Your task to perform on an android device: Open wifi settings Image 0: 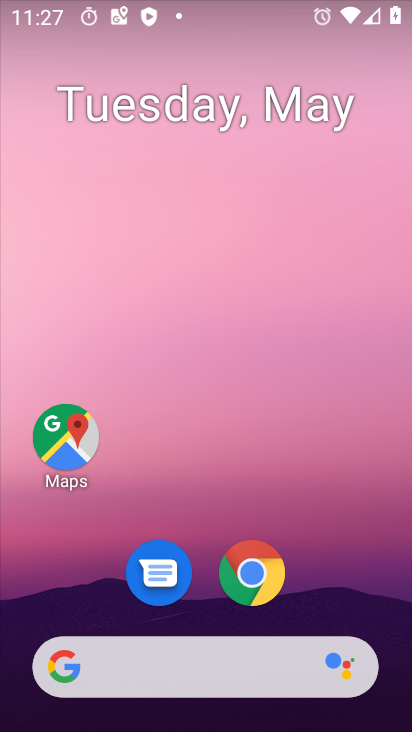
Step 0: drag from (266, 693) to (256, 224)
Your task to perform on an android device: Open wifi settings Image 1: 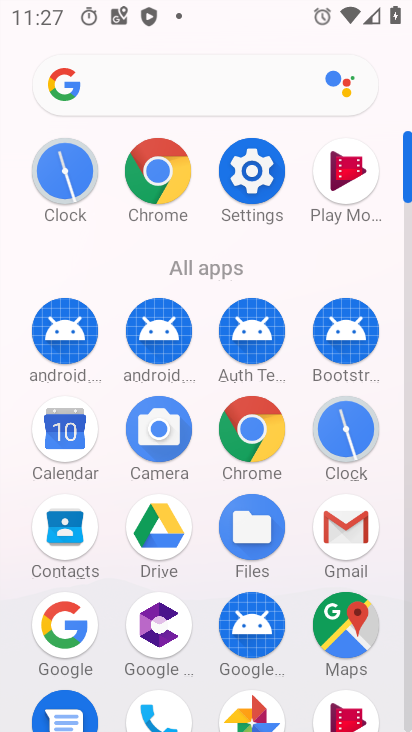
Step 1: click (239, 206)
Your task to perform on an android device: Open wifi settings Image 2: 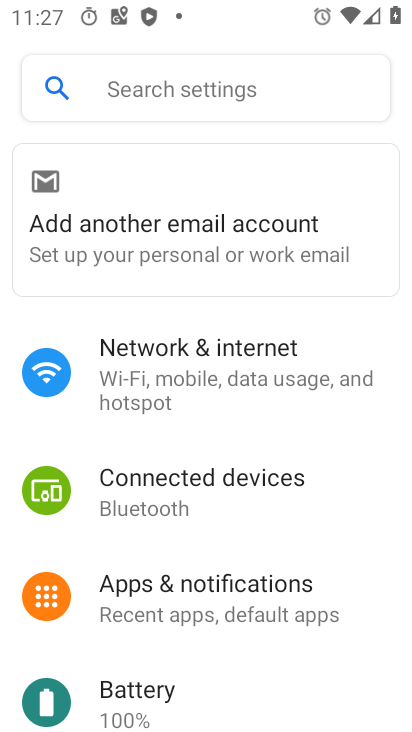
Step 2: click (139, 362)
Your task to perform on an android device: Open wifi settings Image 3: 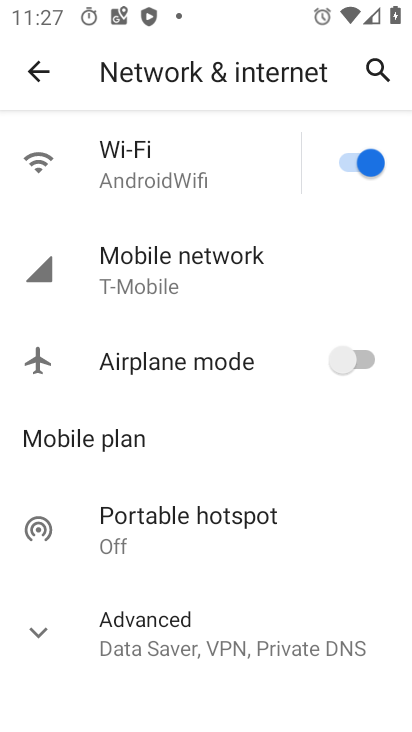
Step 3: click (128, 179)
Your task to perform on an android device: Open wifi settings Image 4: 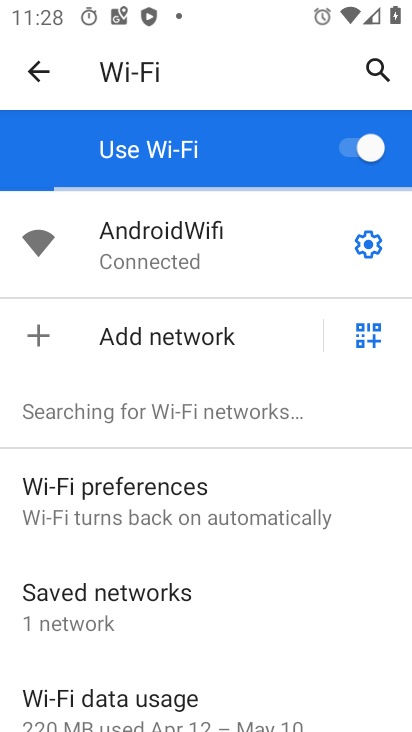
Step 4: task complete